Your task to perform on an android device: Open the phone app and click the voicemail tab. Image 0: 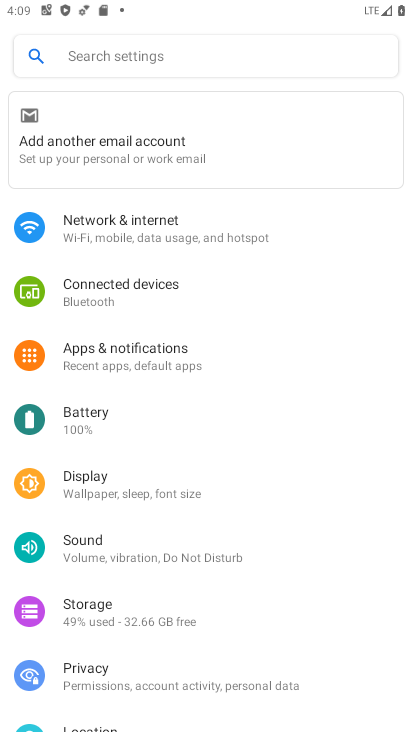
Step 0: press home button
Your task to perform on an android device: Open the phone app and click the voicemail tab. Image 1: 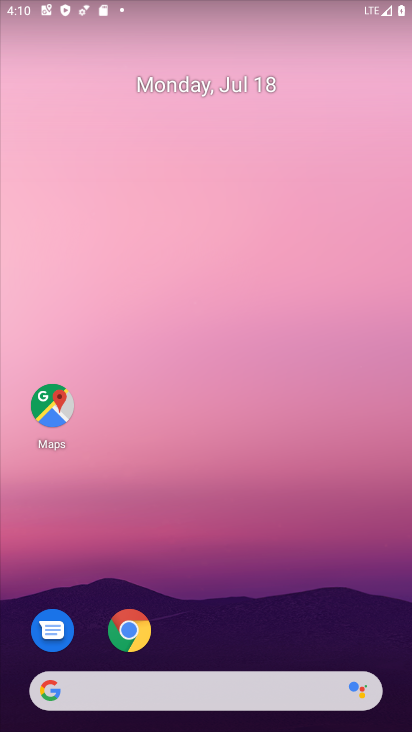
Step 1: drag from (395, 666) to (369, 247)
Your task to perform on an android device: Open the phone app and click the voicemail tab. Image 2: 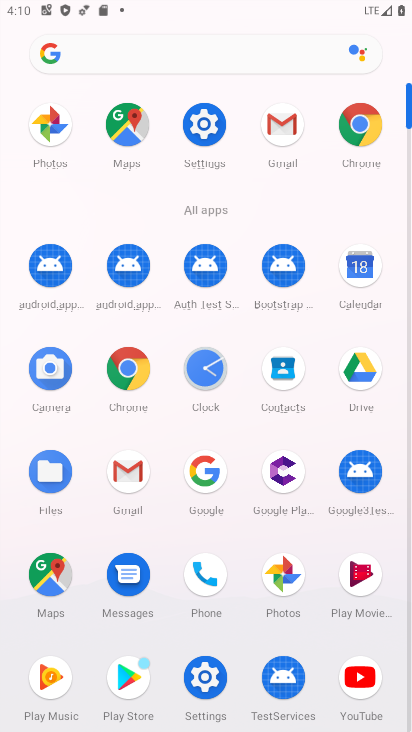
Step 2: click (205, 573)
Your task to perform on an android device: Open the phone app and click the voicemail tab. Image 3: 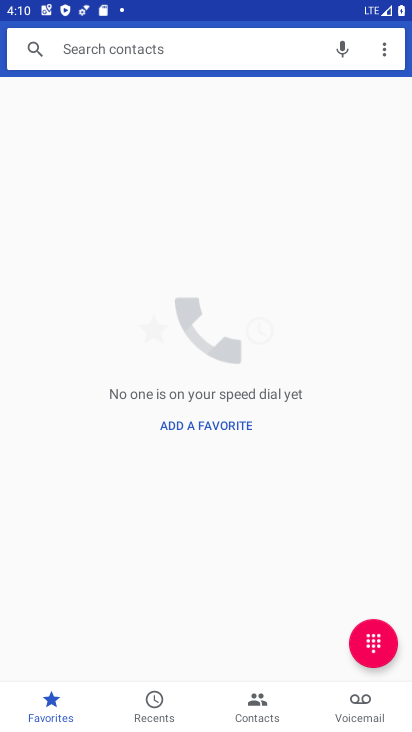
Step 3: click (361, 701)
Your task to perform on an android device: Open the phone app and click the voicemail tab. Image 4: 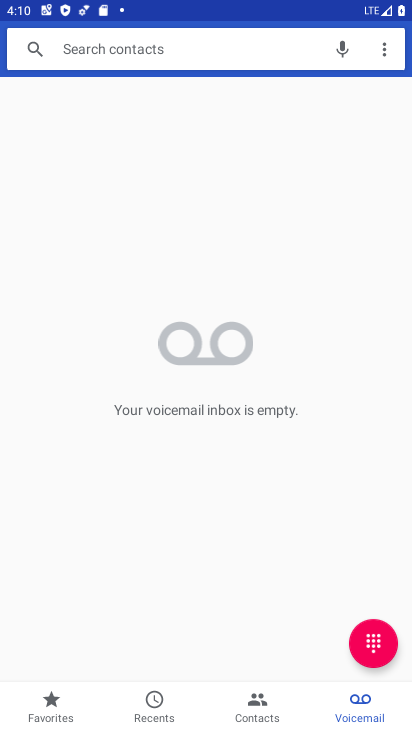
Step 4: task complete